Your task to perform on an android device: Show me popular videos on Youtube Image 0: 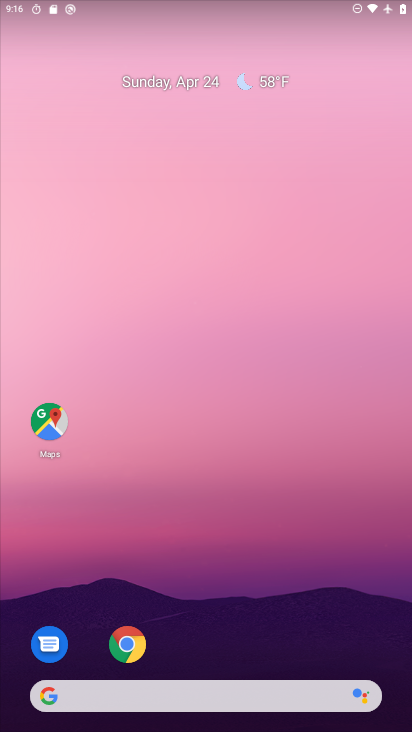
Step 0: drag from (218, 643) to (216, 202)
Your task to perform on an android device: Show me popular videos on Youtube Image 1: 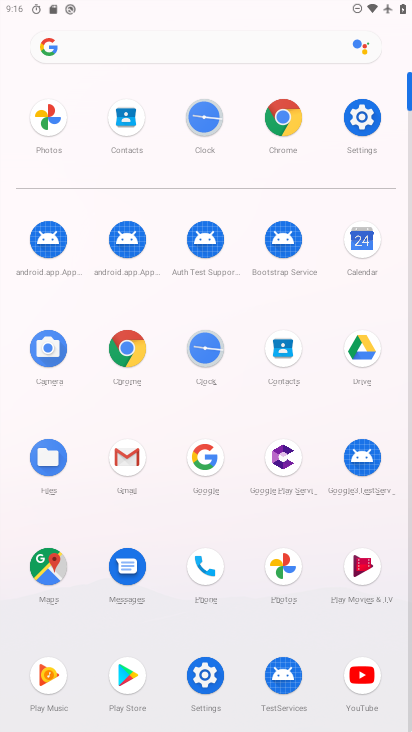
Step 1: click (359, 667)
Your task to perform on an android device: Show me popular videos on Youtube Image 2: 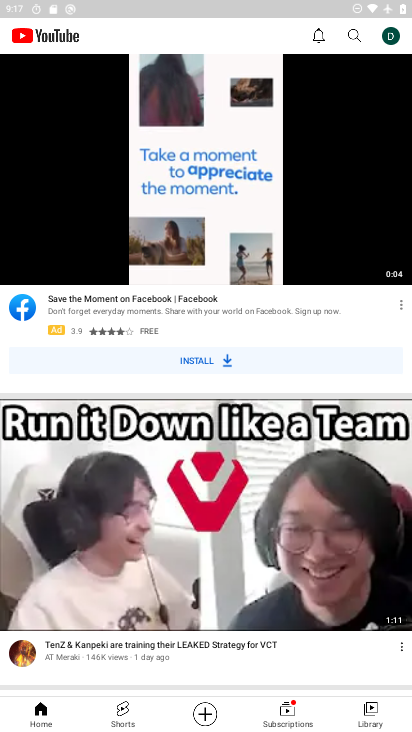
Step 2: drag from (196, 655) to (209, 172)
Your task to perform on an android device: Show me popular videos on Youtube Image 3: 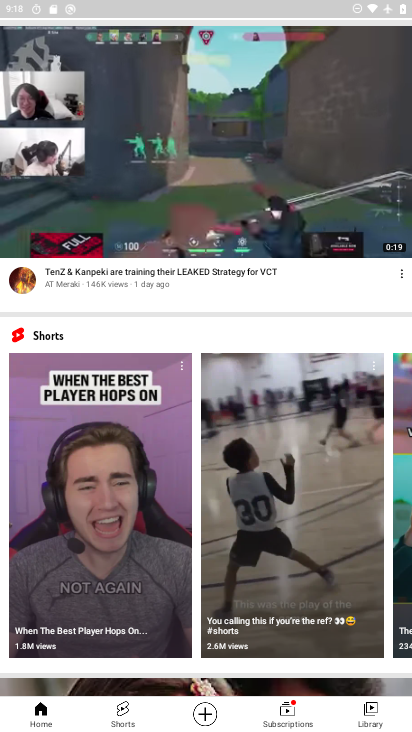
Step 3: drag from (198, 663) to (193, 205)
Your task to perform on an android device: Show me popular videos on Youtube Image 4: 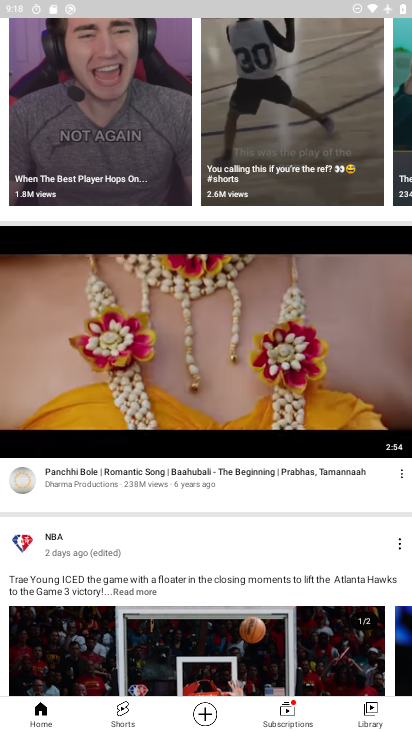
Step 4: drag from (217, 593) to (204, 293)
Your task to perform on an android device: Show me popular videos on Youtube Image 5: 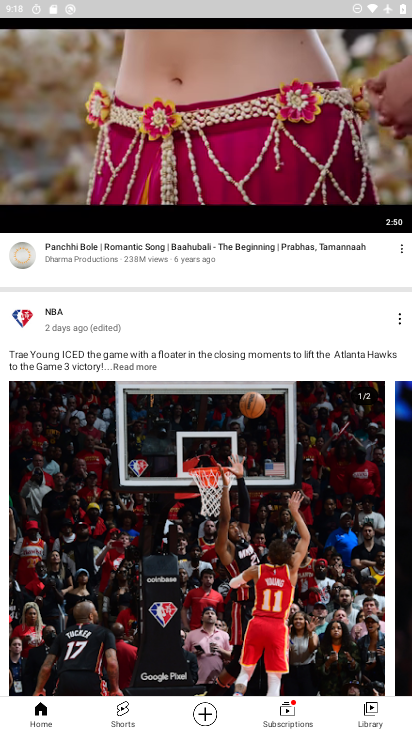
Step 5: drag from (202, 292) to (206, 714)
Your task to perform on an android device: Show me popular videos on Youtube Image 6: 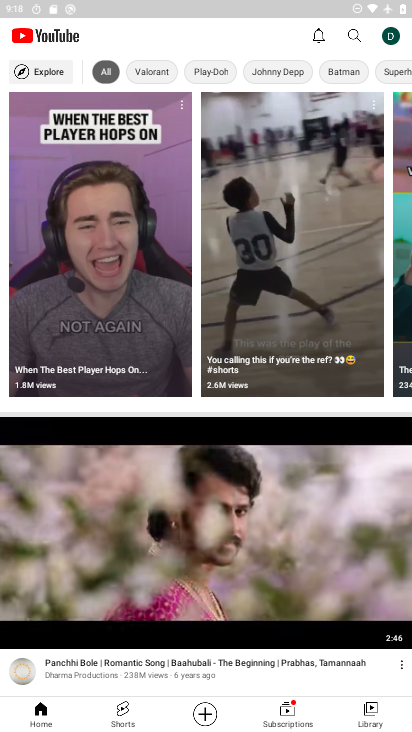
Step 6: drag from (196, 114) to (183, 543)
Your task to perform on an android device: Show me popular videos on Youtube Image 7: 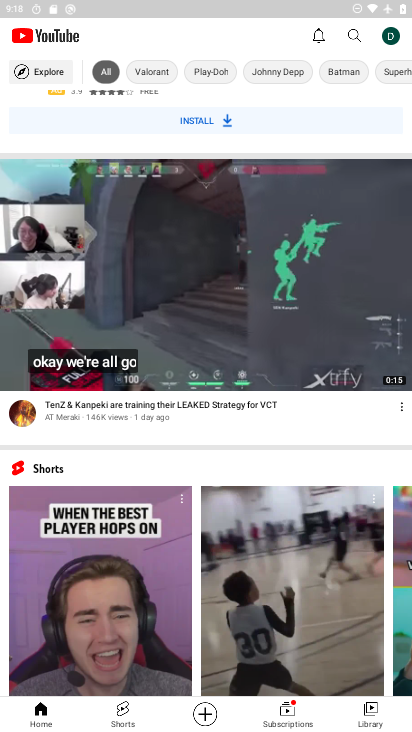
Step 7: drag from (202, 430) to (177, 673)
Your task to perform on an android device: Show me popular videos on Youtube Image 8: 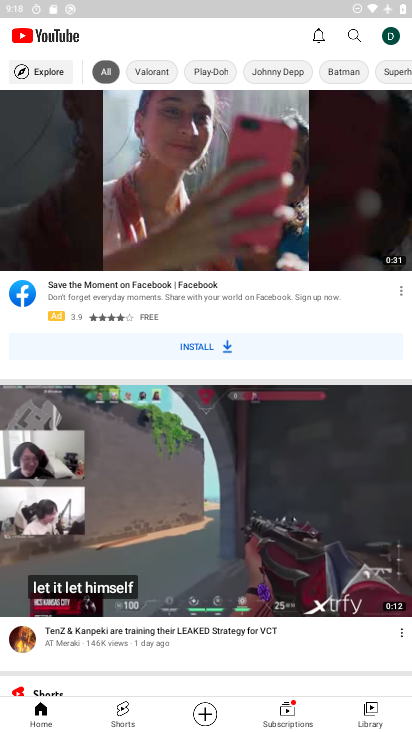
Step 8: drag from (196, 184) to (178, 583)
Your task to perform on an android device: Show me popular videos on Youtube Image 9: 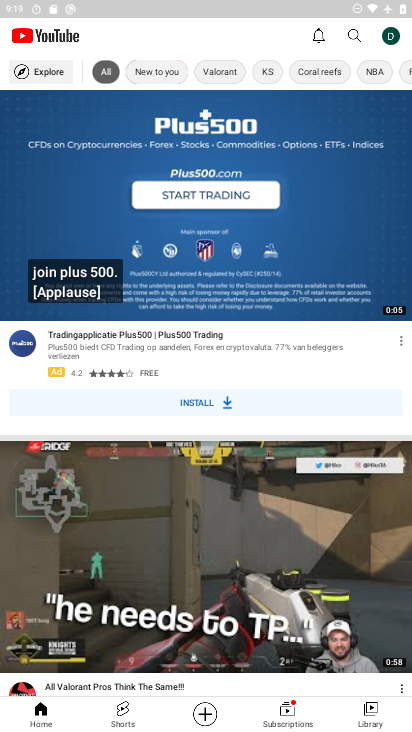
Step 9: drag from (155, 564) to (217, 278)
Your task to perform on an android device: Show me popular videos on Youtube Image 10: 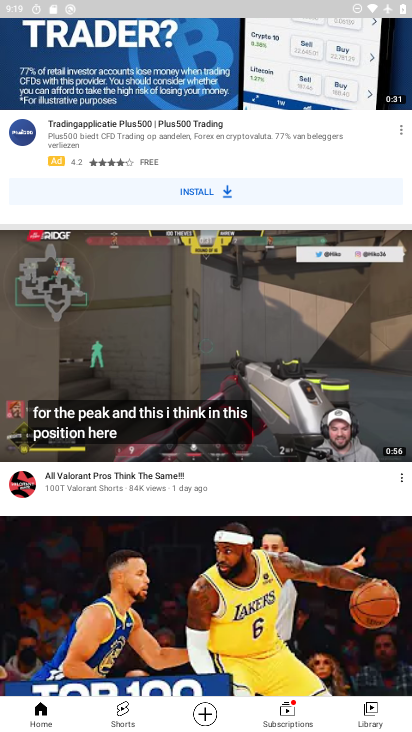
Step 10: drag from (176, 212) to (181, 516)
Your task to perform on an android device: Show me popular videos on Youtube Image 11: 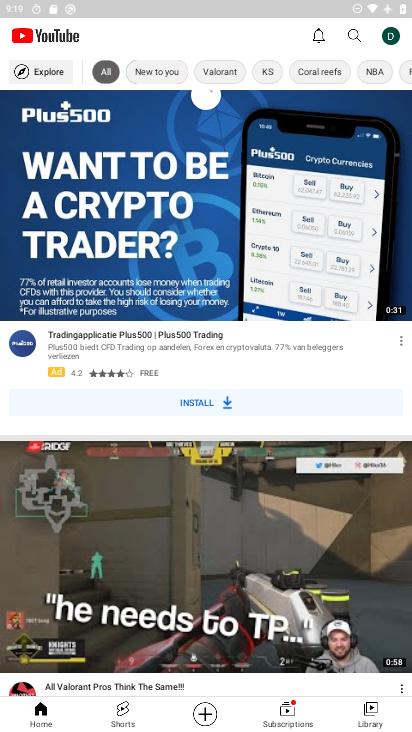
Step 11: click (36, 66)
Your task to perform on an android device: Show me popular videos on Youtube Image 12: 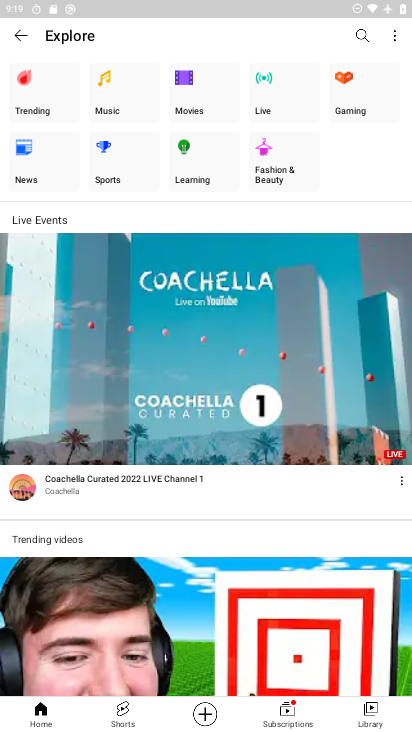
Step 12: click (32, 96)
Your task to perform on an android device: Show me popular videos on Youtube Image 13: 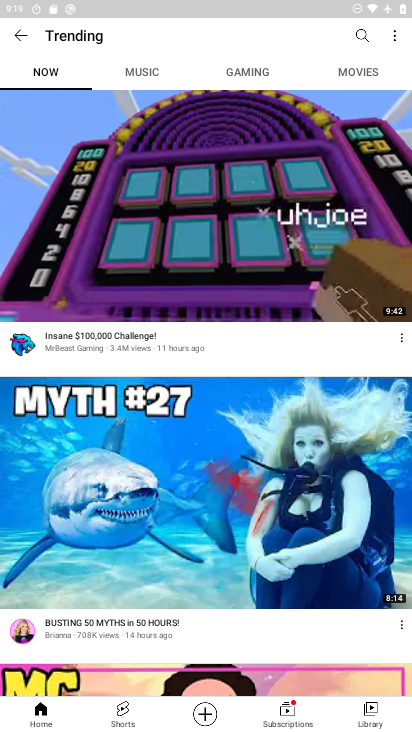
Step 13: task complete